Your task to perform on an android device: turn off location history Image 0: 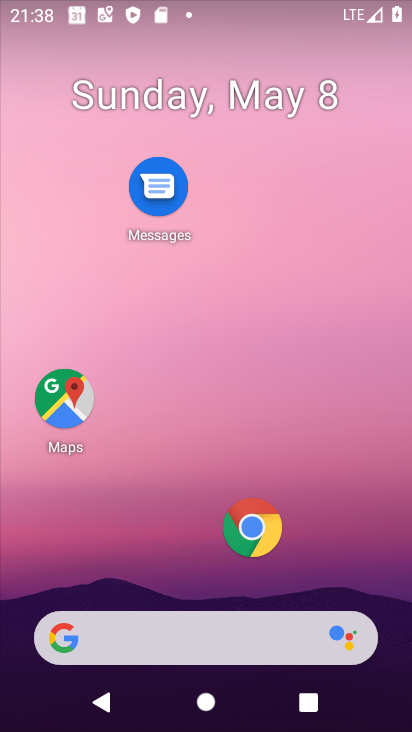
Step 0: drag from (217, 205) to (236, 96)
Your task to perform on an android device: turn off location history Image 1: 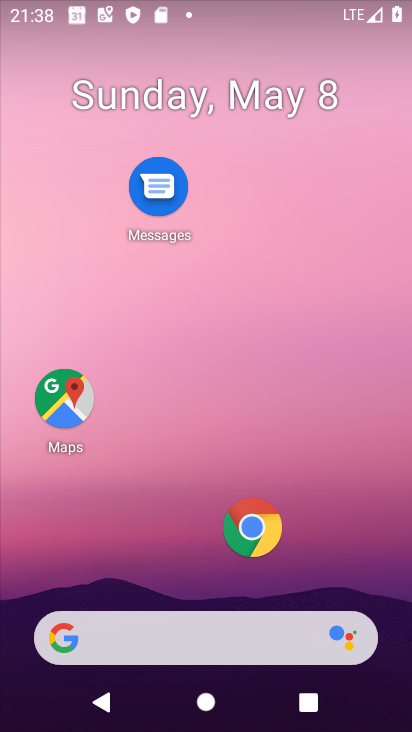
Step 1: drag from (181, 555) to (262, 1)
Your task to perform on an android device: turn off location history Image 2: 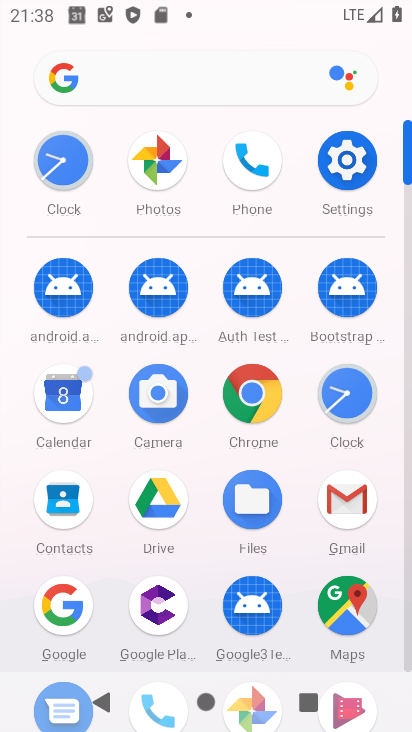
Step 2: click (345, 158)
Your task to perform on an android device: turn off location history Image 3: 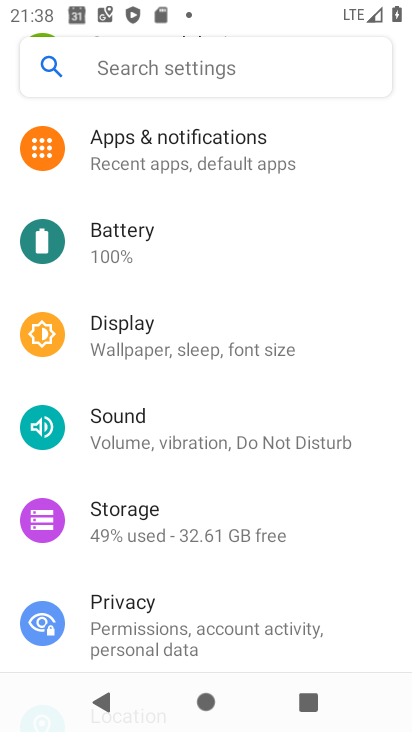
Step 3: drag from (209, 617) to (230, 174)
Your task to perform on an android device: turn off location history Image 4: 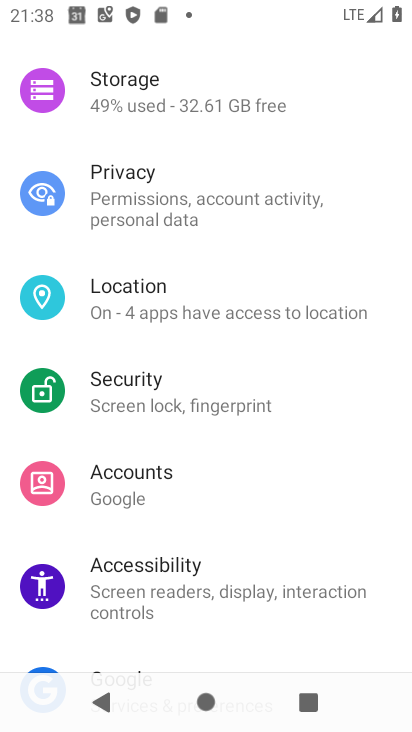
Step 4: click (169, 312)
Your task to perform on an android device: turn off location history Image 5: 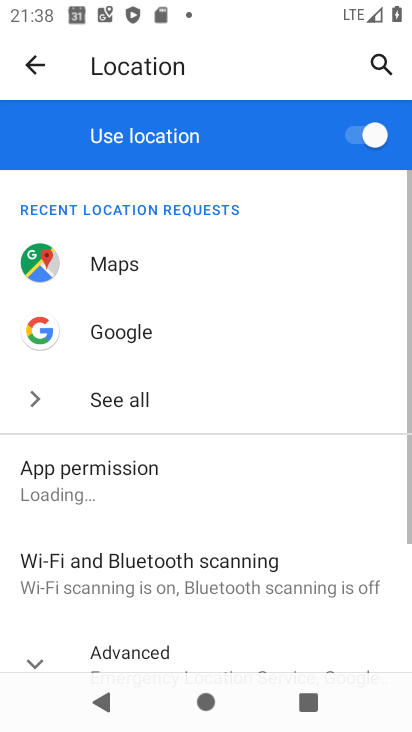
Step 5: drag from (248, 638) to (217, 96)
Your task to perform on an android device: turn off location history Image 6: 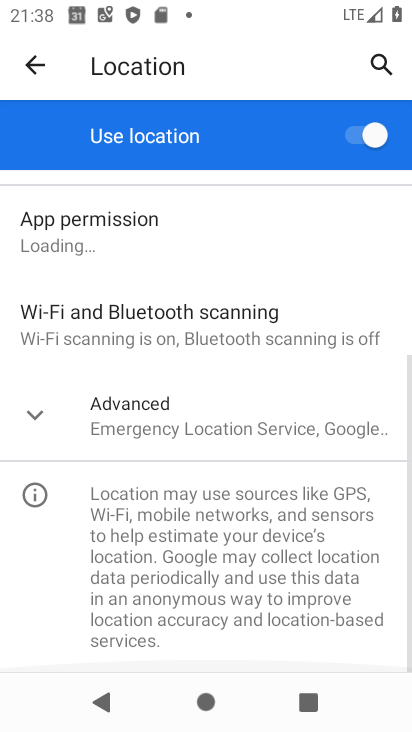
Step 6: click (147, 419)
Your task to perform on an android device: turn off location history Image 7: 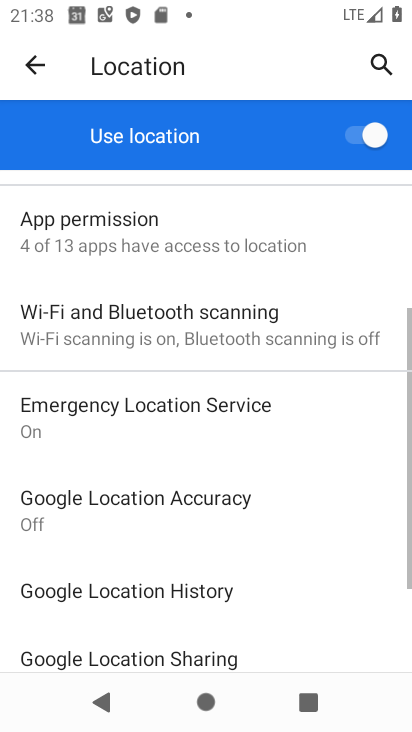
Step 7: click (165, 595)
Your task to perform on an android device: turn off location history Image 8: 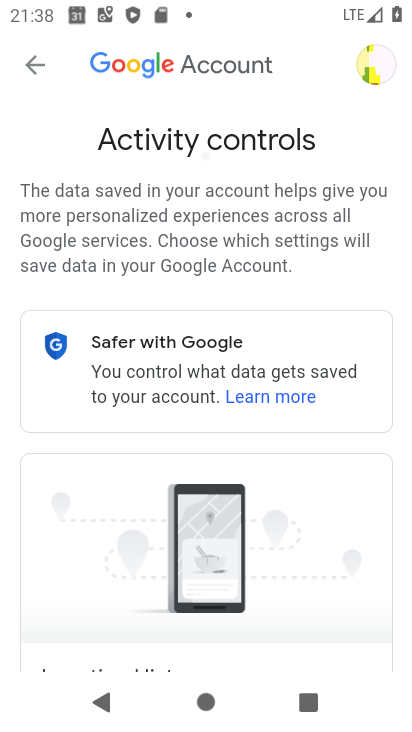
Step 8: drag from (292, 477) to (339, 21)
Your task to perform on an android device: turn off location history Image 9: 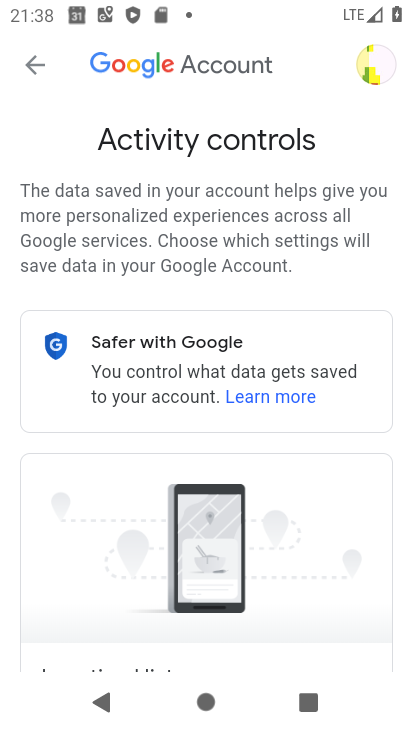
Step 9: drag from (279, 578) to (329, 51)
Your task to perform on an android device: turn off location history Image 10: 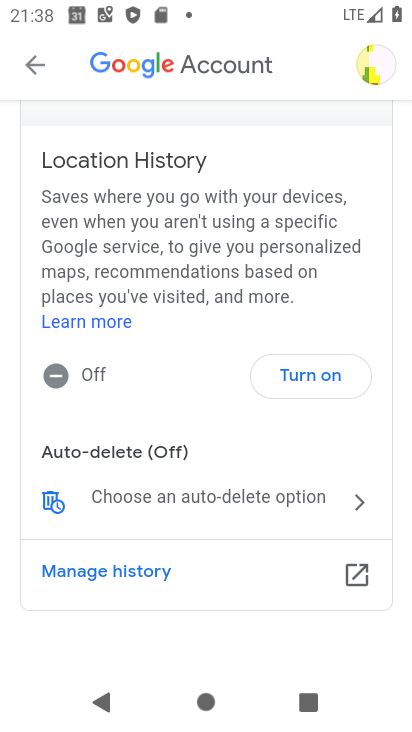
Step 10: press back button
Your task to perform on an android device: turn off location history Image 11: 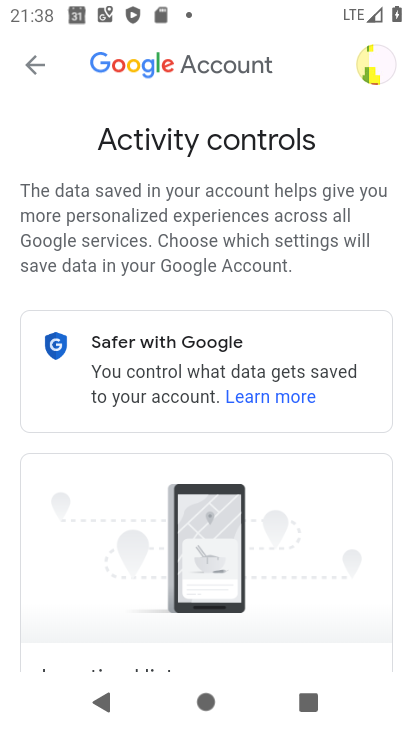
Step 11: drag from (275, 524) to (312, 78)
Your task to perform on an android device: turn off location history Image 12: 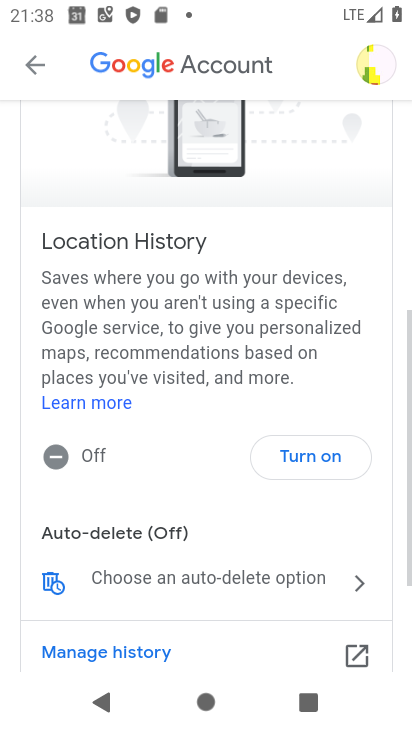
Step 12: press back button
Your task to perform on an android device: turn off location history Image 13: 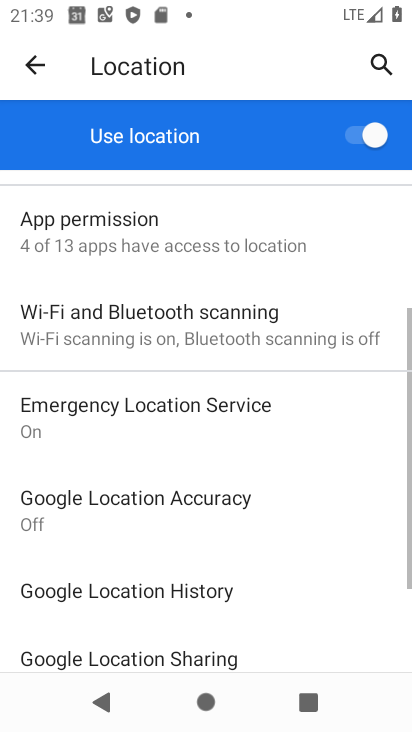
Step 13: drag from (224, 566) to (250, 358)
Your task to perform on an android device: turn off location history Image 14: 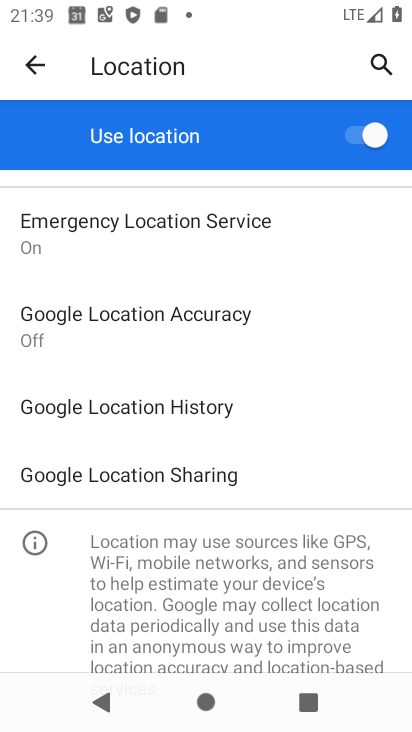
Step 14: click (193, 409)
Your task to perform on an android device: turn off location history Image 15: 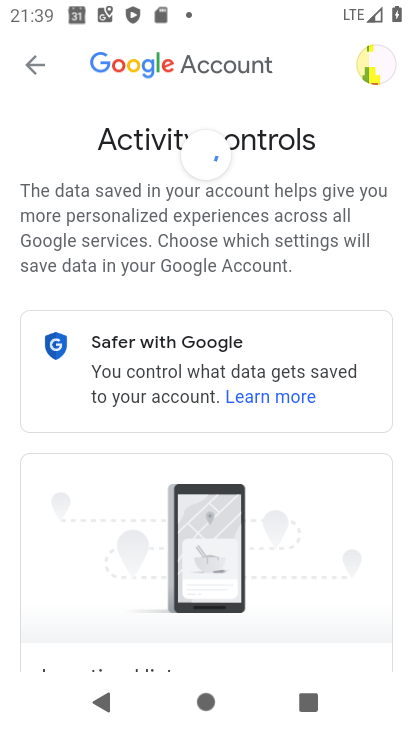
Step 15: task complete